Your task to perform on an android device: Open CNN.com Image 0: 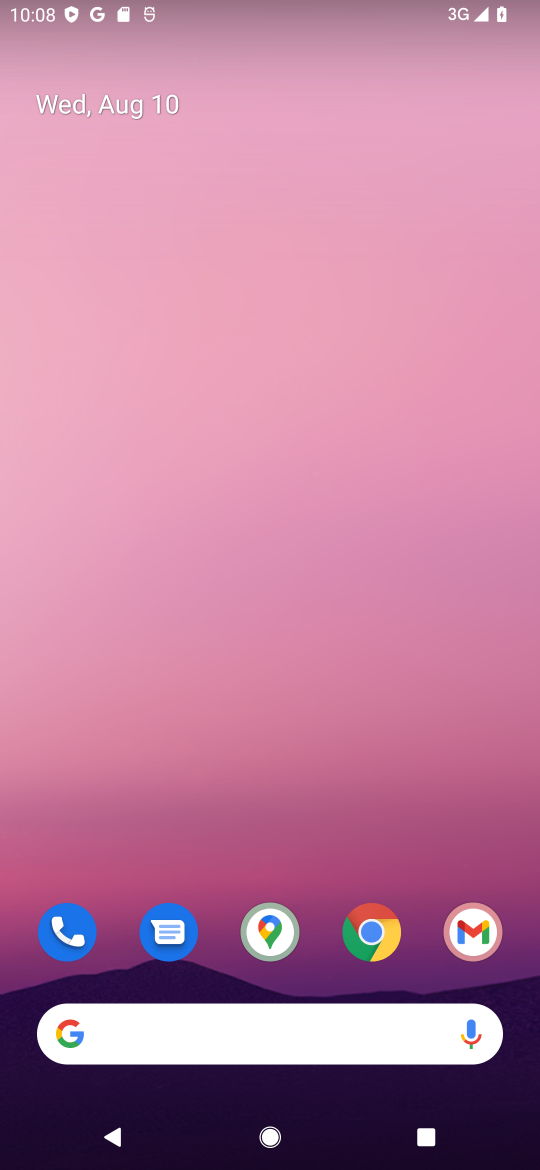
Step 0: click (374, 934)
Your task to perform on an android device: Open CNN.com Image 1: 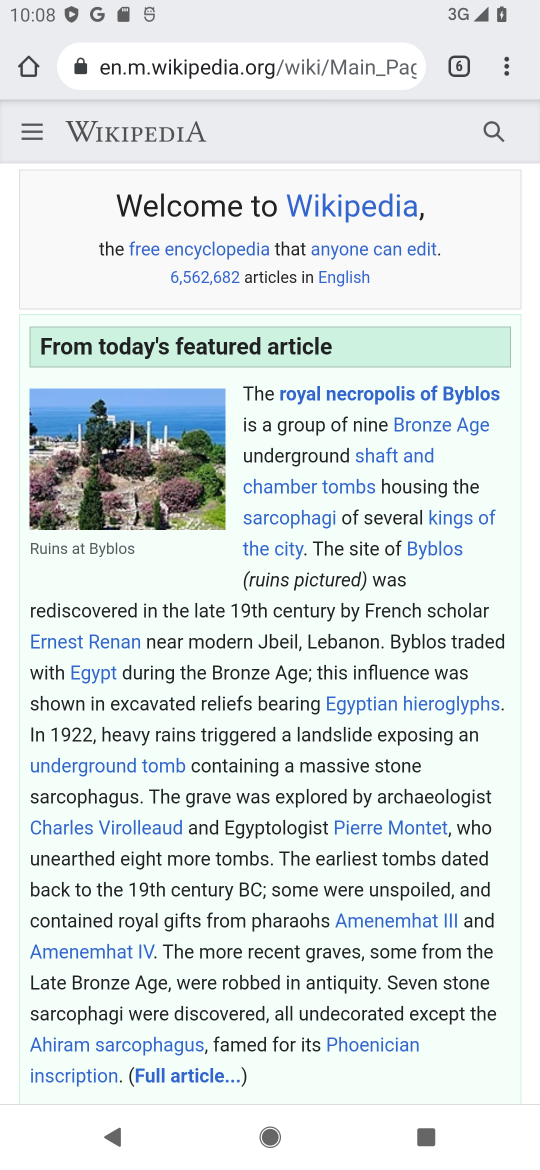
Step 1: click (493, 62)
Your task to perform on an android device: Open CNN.com Image 2: 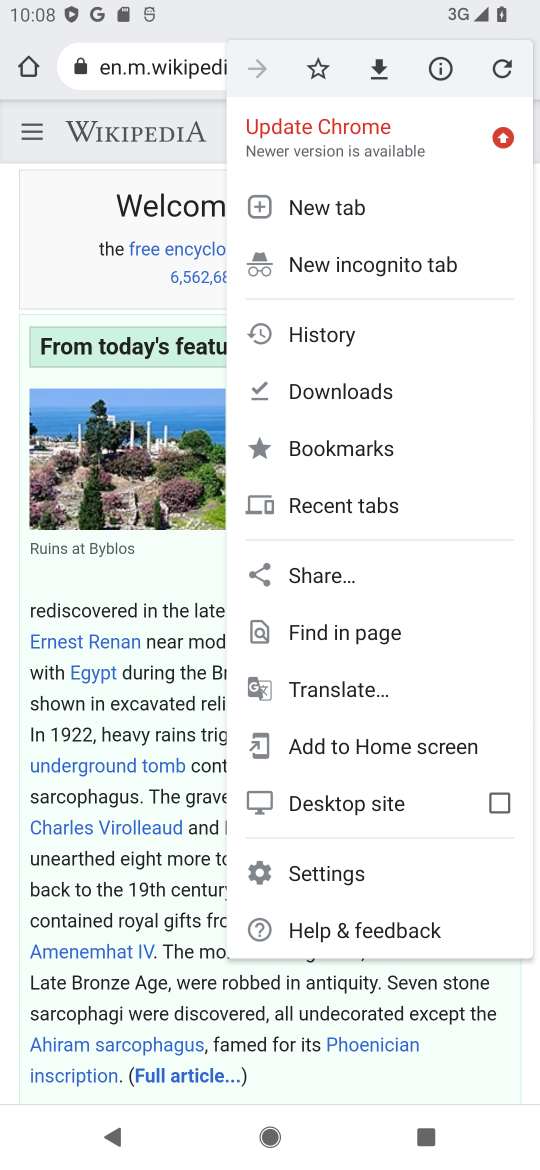
Step 2: click (338, 207)
Your task to perform on an android device: Open CNN.com Image 3: 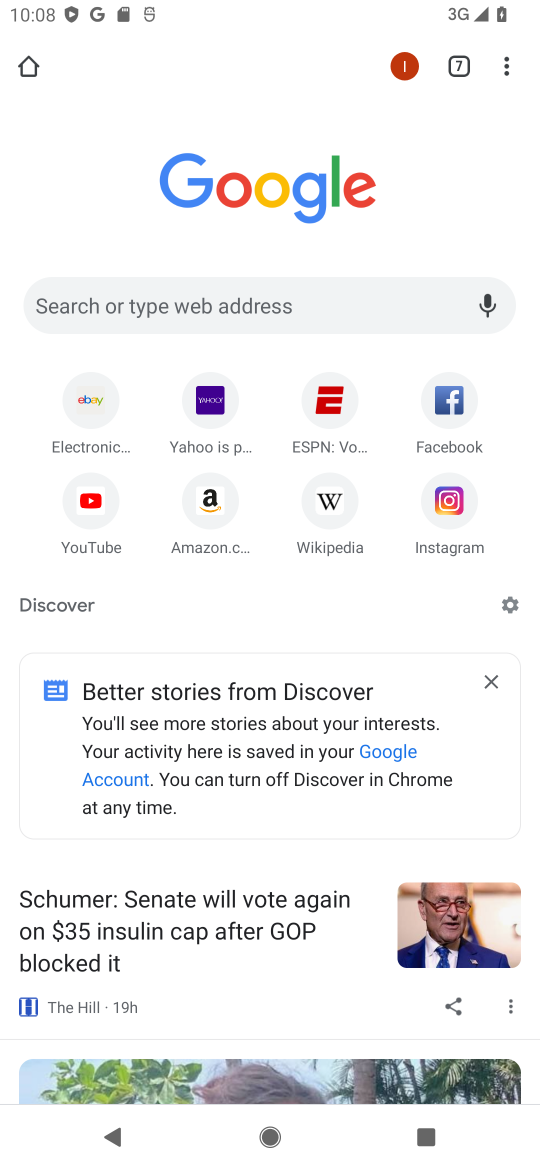
Step 3: click (214, 299)
Your task to perform on an android device: Open CNN.com Image 4: 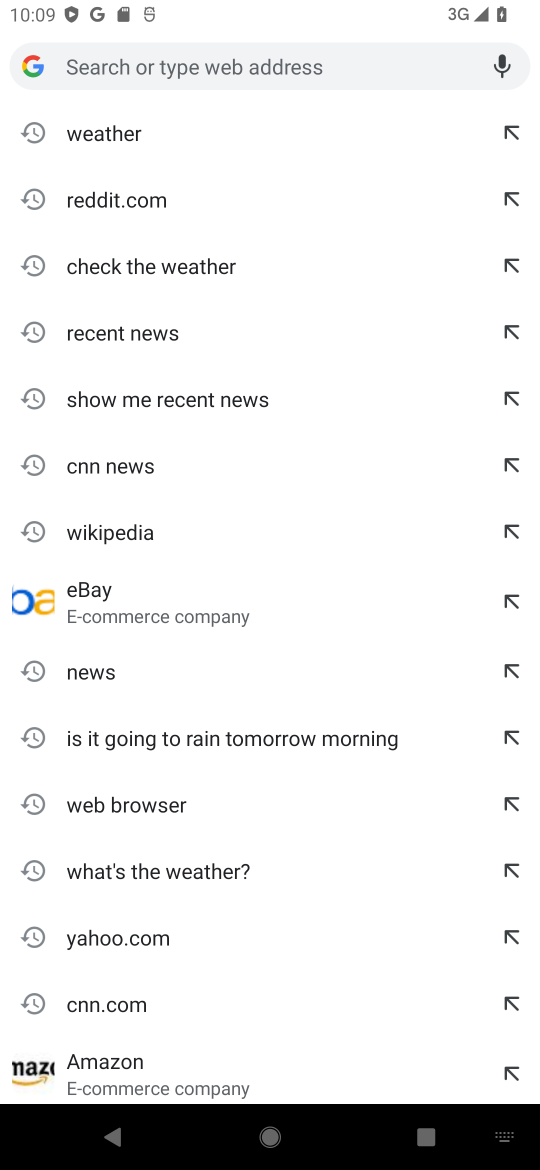
Step 4: click (117, 1003)
Your task to perform on an android device: Open CNN.com Image 5: 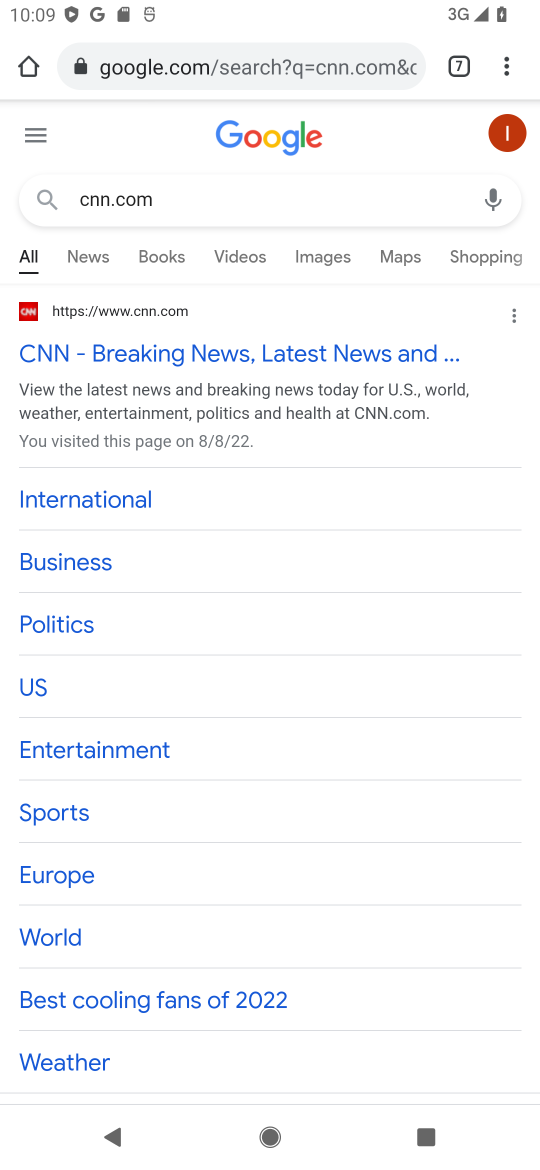
Step 5: click (183, 351)
Your task to perform on an android device: Open CNN.com Image 6: 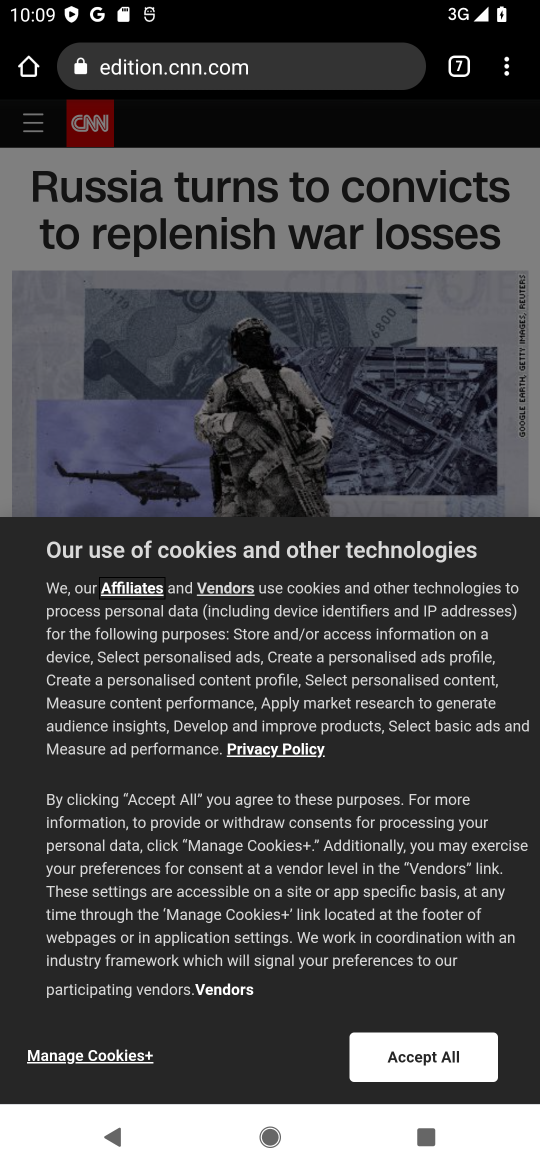
Step 6: click (426, 1062)
Your task to perform on an android device: Open CNN.com Image 7: 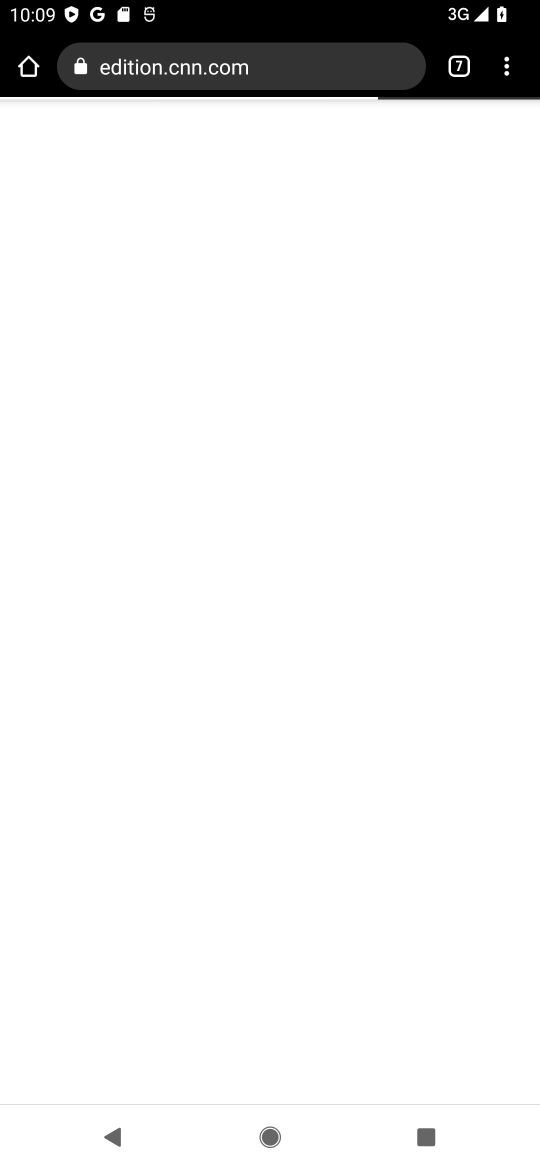
Step 7: task complete